Your task to perform on an android device: turn on showing notifications on the lock screen Image 0: 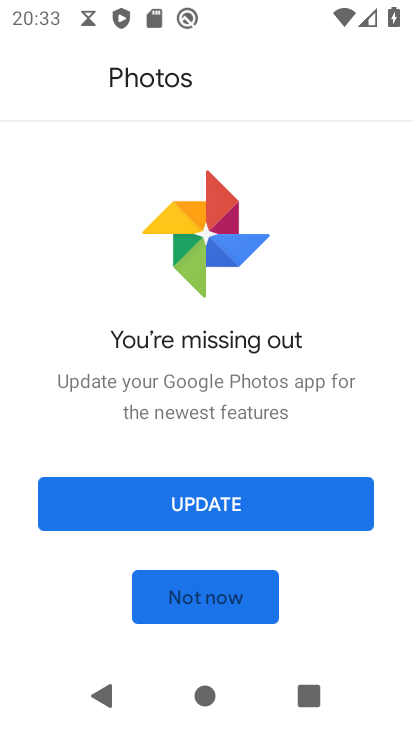
Step 0: press home button
Your task to perform on an android device: turn on showing notifications on the lock screen Image 1: 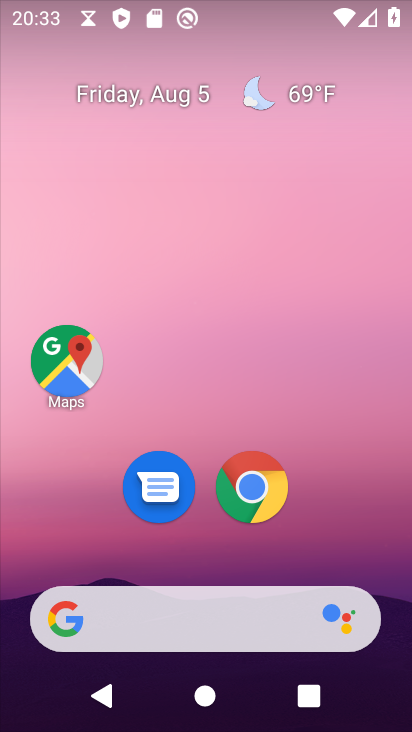
Step 1: drag from (203, 615) to (268, 78)
Your task to perform on an android device: turn on showing notifications on the lock screen Image 2: 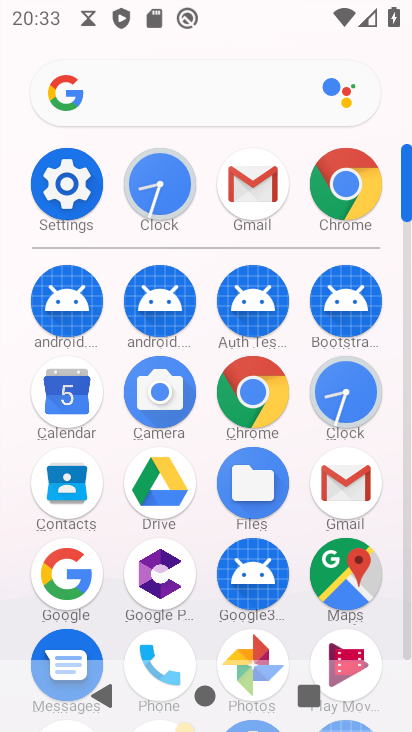
Step 2: click (68, 186)
Your task to perform on an android device: turn on showing notifications on the lock screen Image 3: 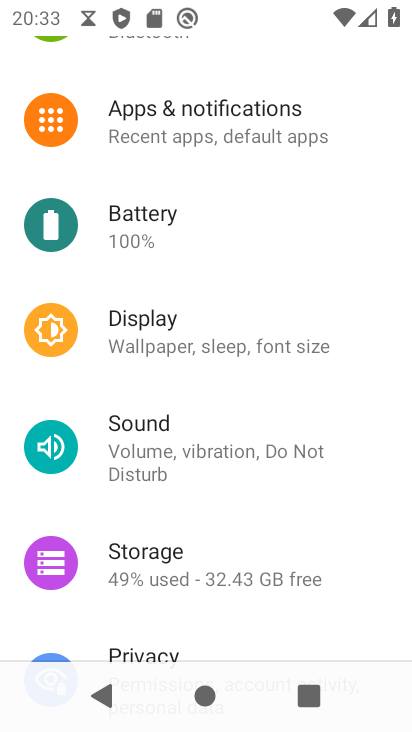
Step 3: click (236, 126)
Your task to perform on an android device: turn on showing notifications on the lock screen Image 4: 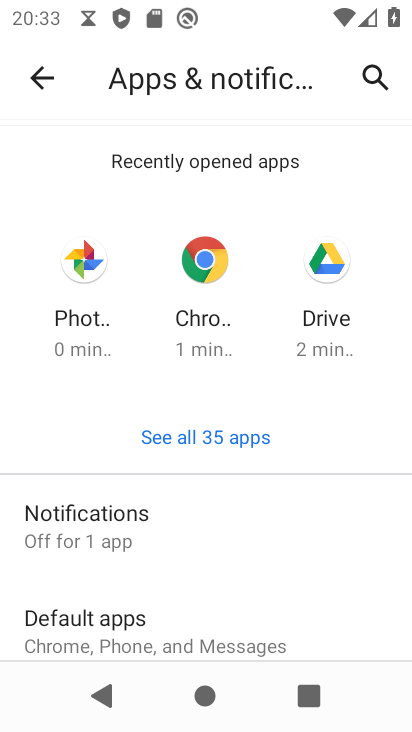
Step 4: click (87, 532)
Your task to perform on an android device: turn on showing notifications on the lock screen Image 5: 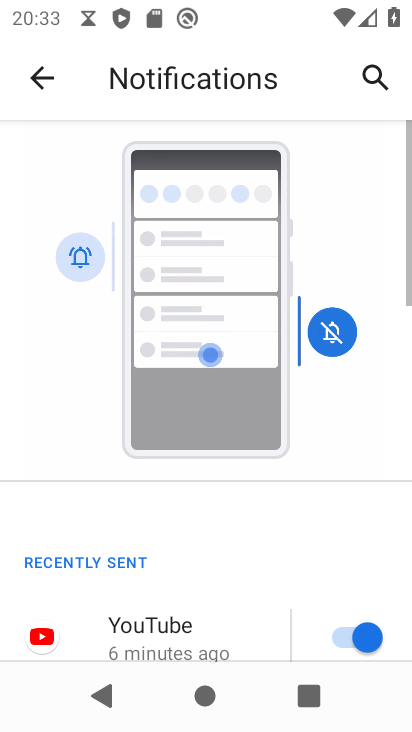
Step 5: drag from (240, 611) to (366, 106)
Your task to perform on an android device: turn on showing notifications on the lock screen Image 6: 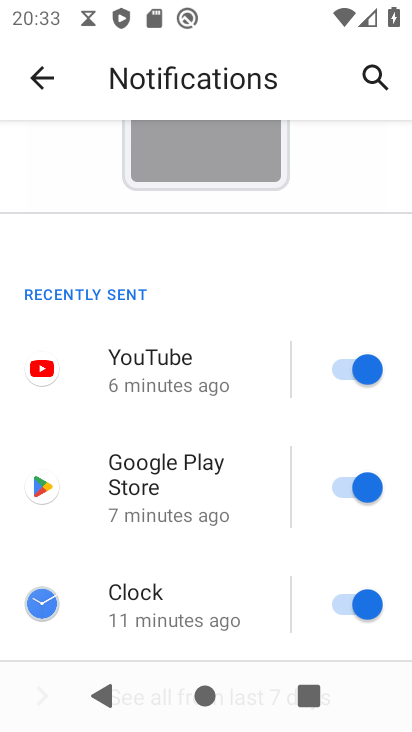
Step 6: drag from (262, 594) to (376, 126)
Your task to perform on an android device: turn on showing notifications on the lock screen Image 7: 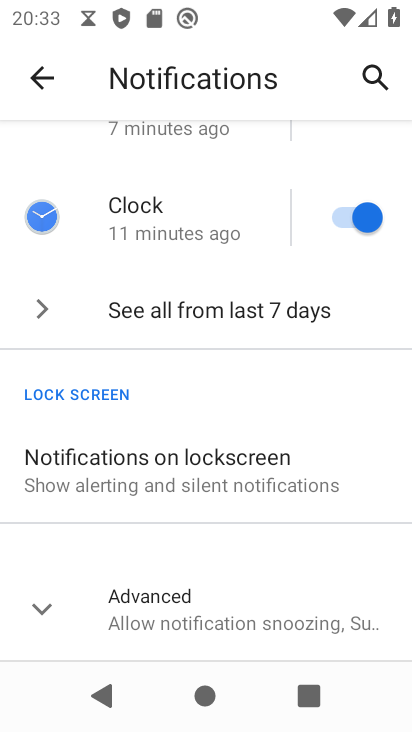
Step 7: click (221, 482)
Your task to perform on an android device: turn on showing notifications on the lock screen Image 8: 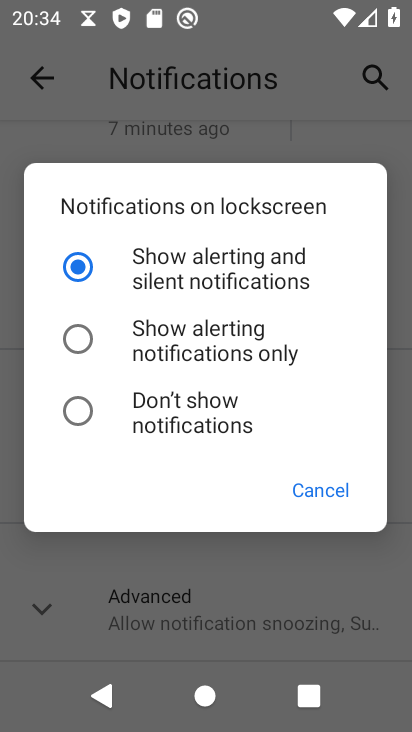
Step 8: task complete